Your task to perform on an android device: Clear the shopping cart on newegg.com. Search for "razer thresher" on newegg.com, select the first entry, add it to the cart, then select checkout. Image 0: 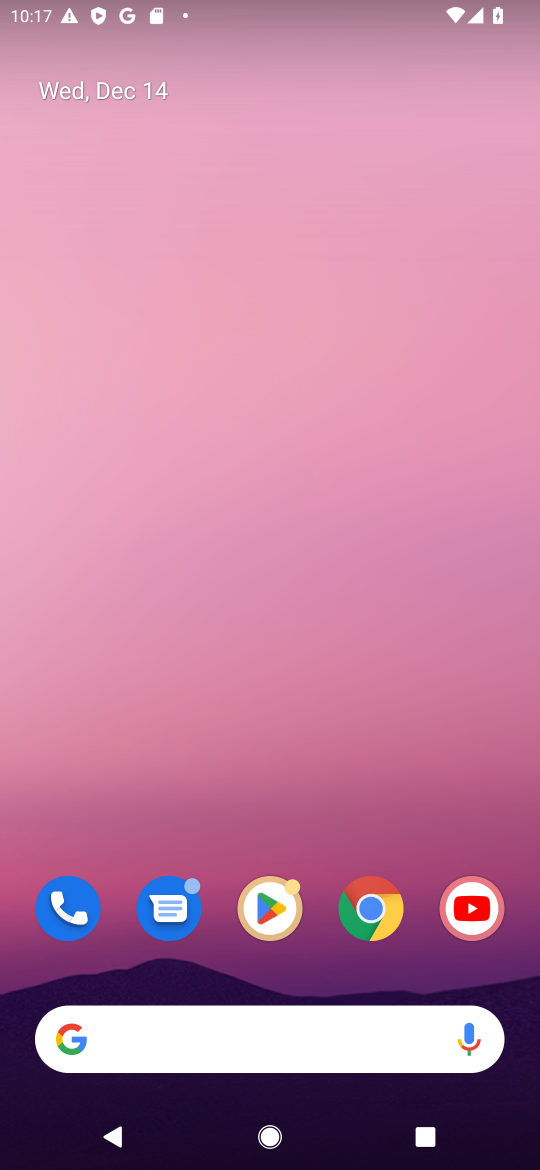
Step 0: click (353, 943)
Your task to perform on an android device: Clear the shopping cart on newegg.com. Search for "razer thresher" on newegg.com, select the first entry, add it to the cart, then select checkout. Image 1: 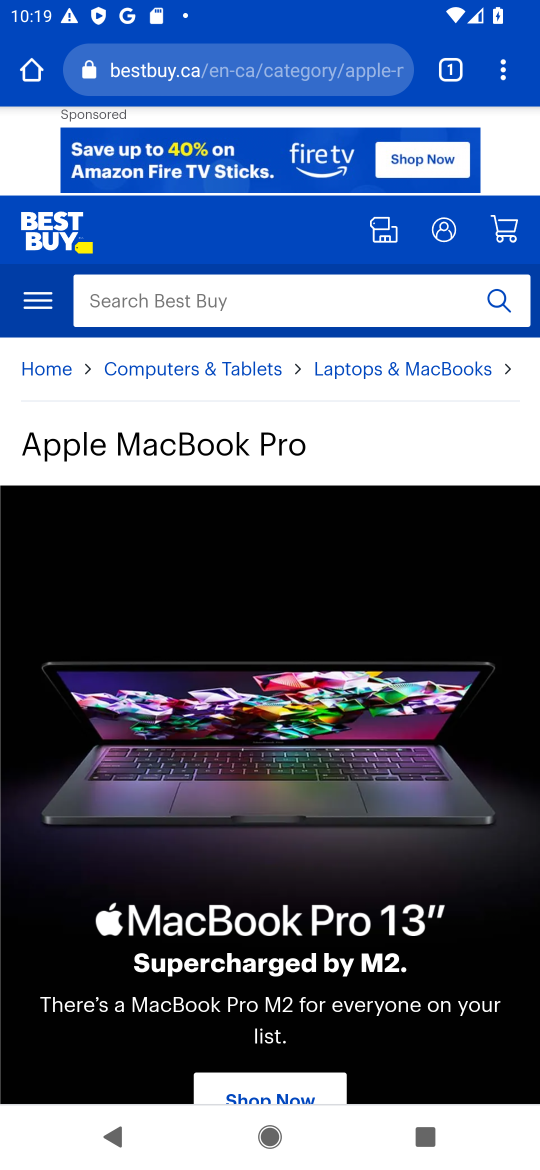
Step 1: task complete